Your task to perform on an android device: change notifications settings Image 0: 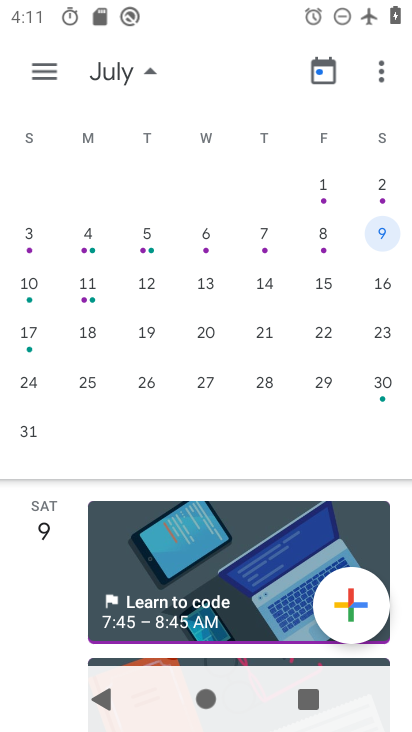
Step 0: press home button
Your task to perform on an android device: change notifications settings Image 1: 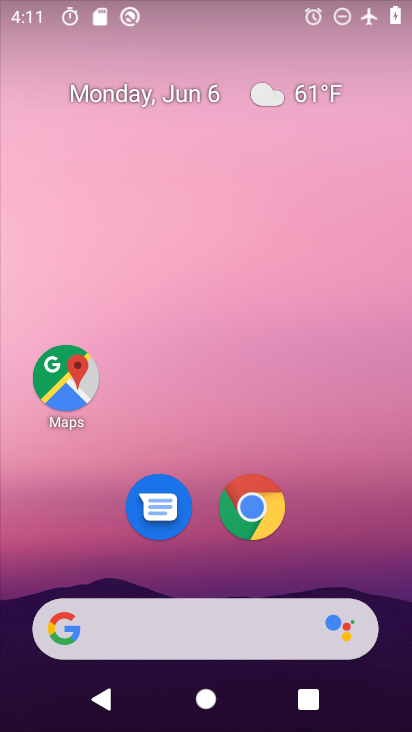
Step 1: drag from (198, 571) to (213, 216)
Your task to perform on an android device: change notifications settings Image 2: 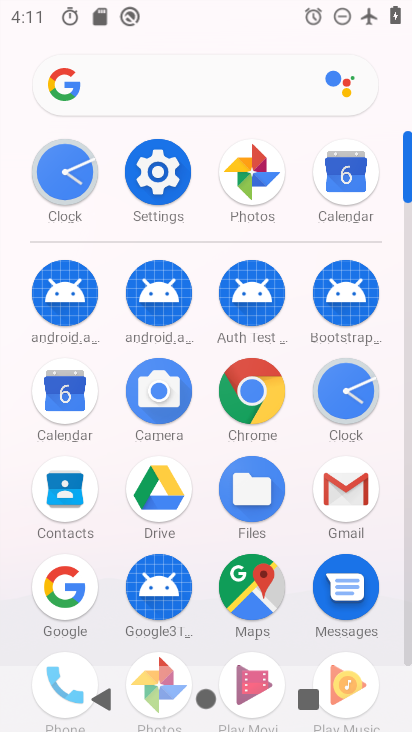
Step 2: click (154, 201)
Your task to perform on an android device: change notifications settings Image 3: 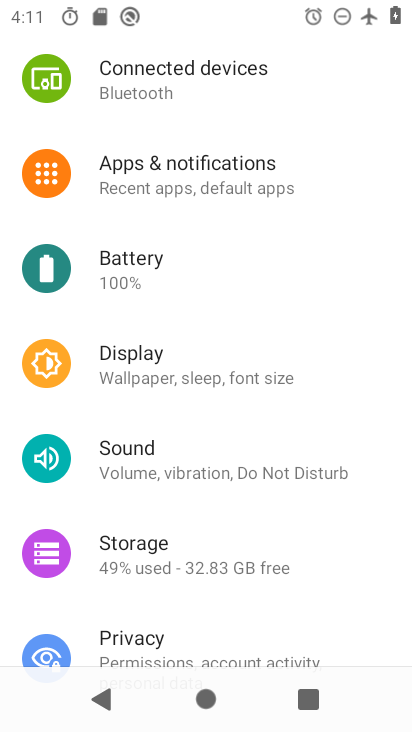
Step 3: click (179, 185)
Your task to perform on an android device: change notifications settings Image 4: 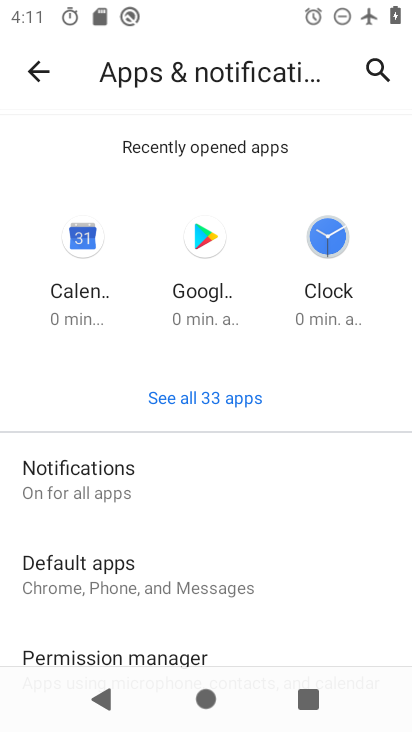
Step 4: click (188, 476)
Your task to perform on an android device: change notifications settings Image 5: 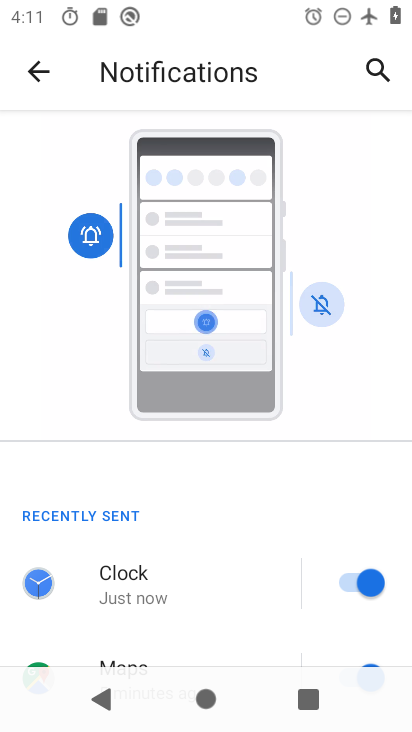
Step 5: task complete